Your task to perform on an android device: turn pop-ups on in chrome Image 0: 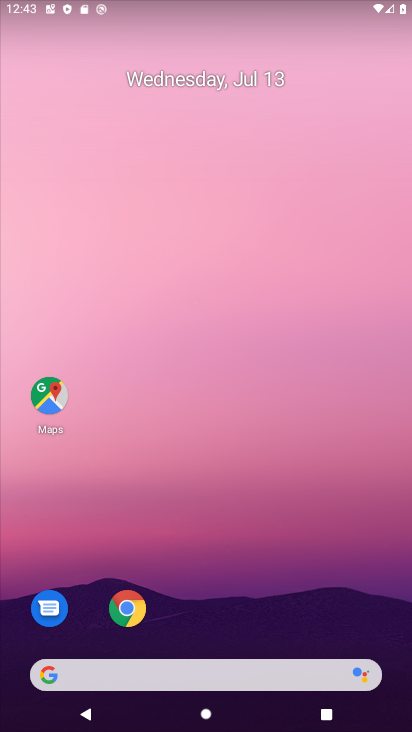
Step 0: click (113, 612)
Your task to perform on an android device: turn pop-ups on in chrome Image 1: 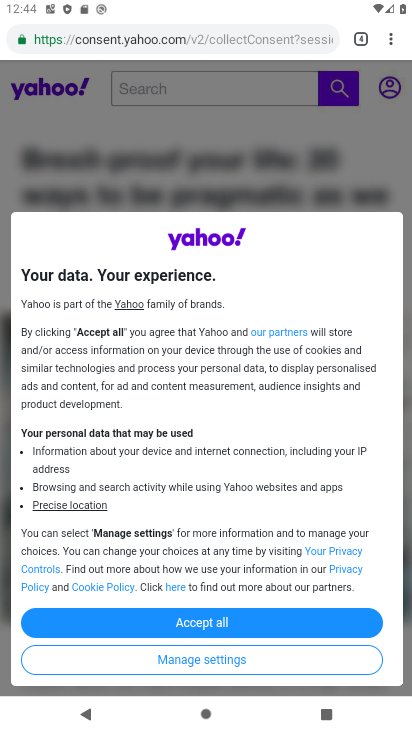
Step 1: drag from (390, 37) to (265, 518)
Your task to perform on an android device: turn pop-ups on in chrome Image 2: 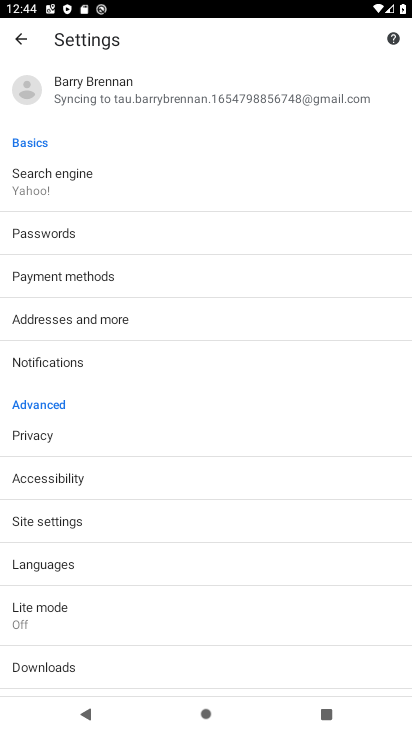
Step 2: click (51, 527)
Your task to perform on an android device: turn pop-ups on in chrome Image 3: 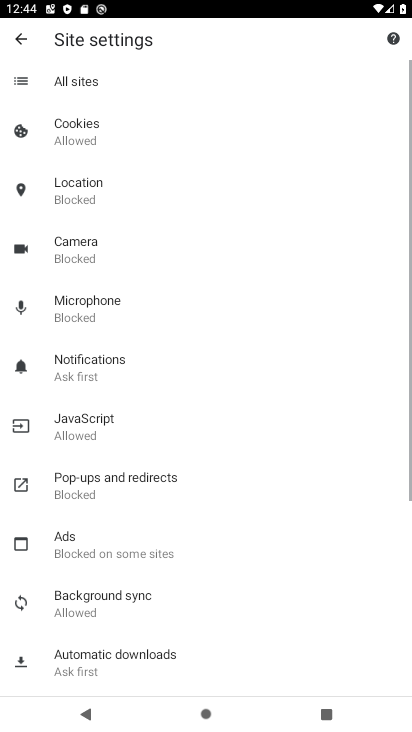
Step 3: click (136, 482)
Your task to perform on an android device: turn pop-ups on in chrome Image 4: 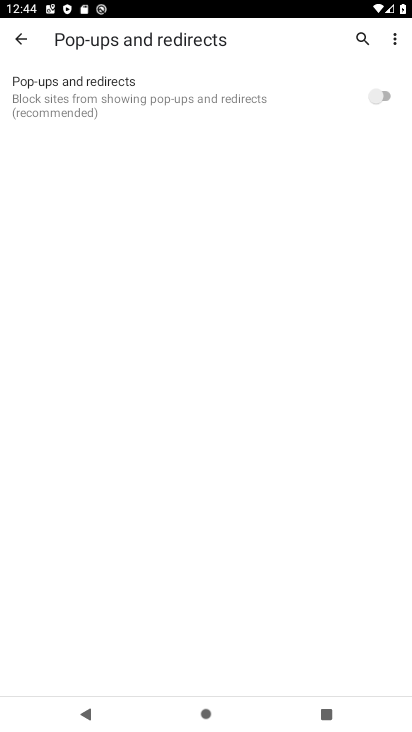
Step 4: click (378, 94)
Your task to perform on an android device: turn pop-ups on in chrome Image 5: 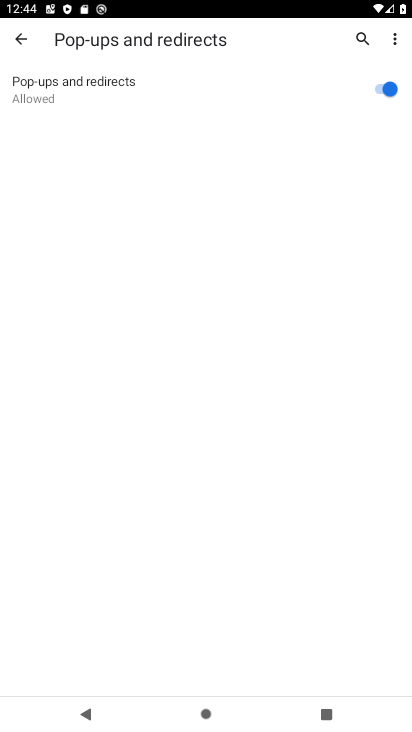
Step 5: task complete